Your task to perform on an android device: toggle airplane mode Image 0: 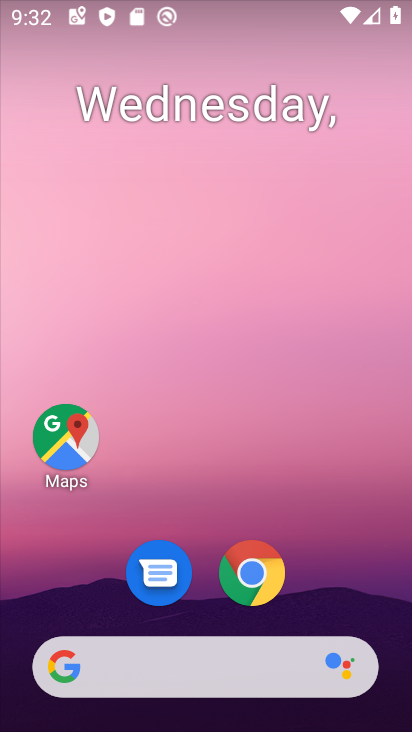
Step 0: drag from (384, 594) to (404, 176)
Your task to perform on an android device: toggle airplane mode Image 1: 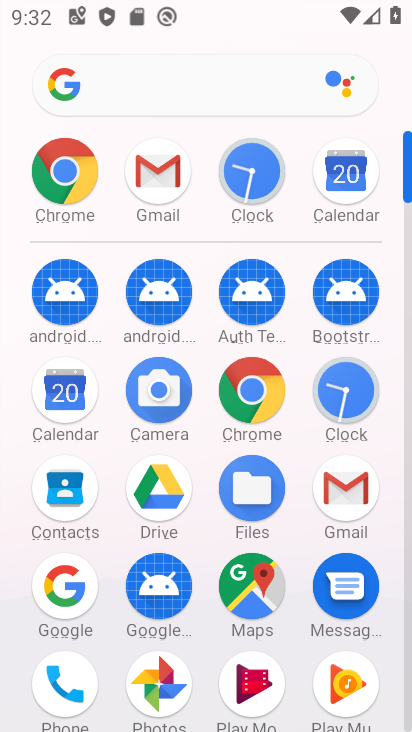
Step 1: drag from (411, 165) to (410, 123)
Your task to perform on an android device: toggle airplane mode Image 2: 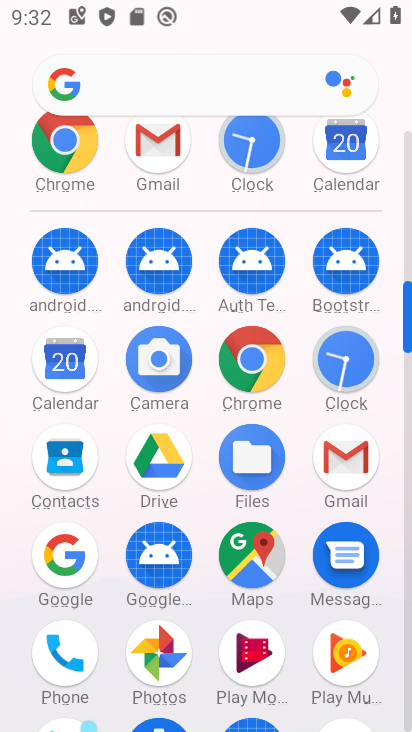
Step 2: drag from (406, 177) to (406, 65)
Your task to perform on an android device: toggle airplane mode Image 3: 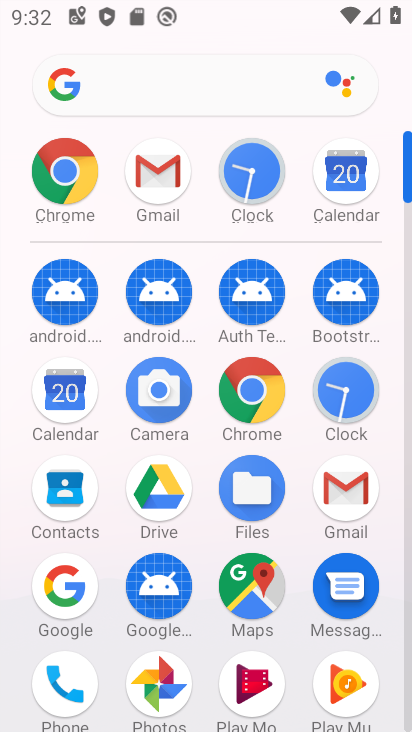
Step 3: drag from (407, 169) to (409, 91)
Your task to perform on an android device: toggle airplane mode Image 4: 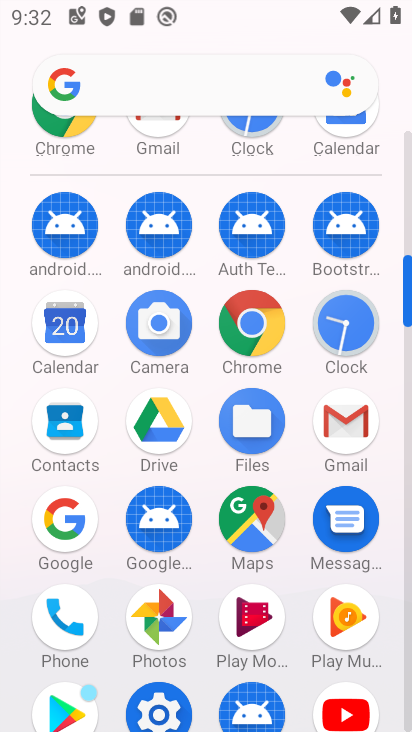
Step 4: click (160, 700)
Your task to perform on an android device: toggle airplane mode Image 5: 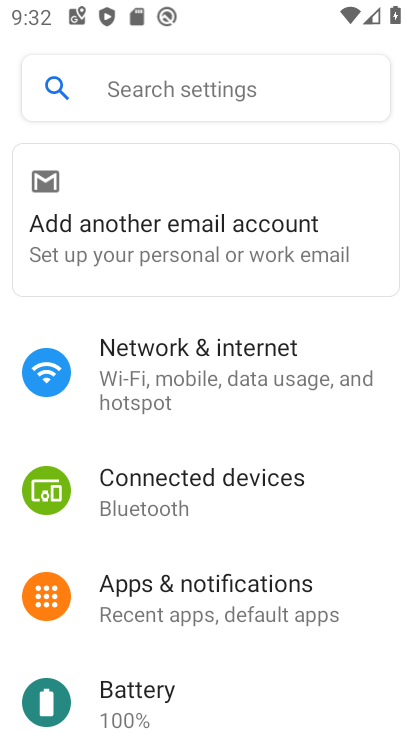
Step 5: click (136, 371)
Your task to perform on an android device: toggle airplane mode Image 6: 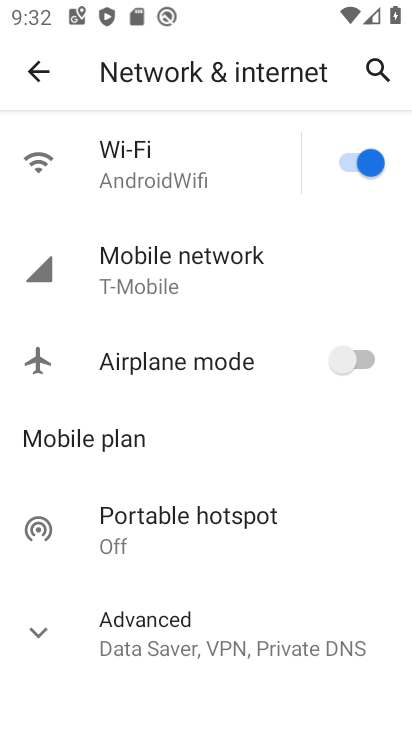
Step 6: click (362, 361)
Your task to perform on an android device: toggle airplane mode Image 7: 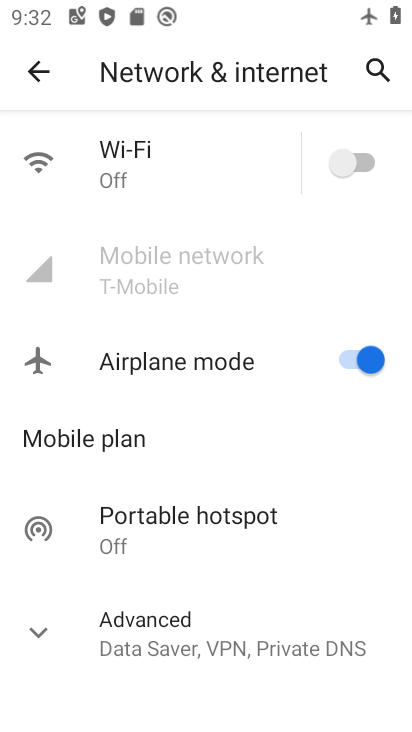
Step 7: task complete